Your task to perform on an android device: Set the phone to "Do not disturb". Image 0: 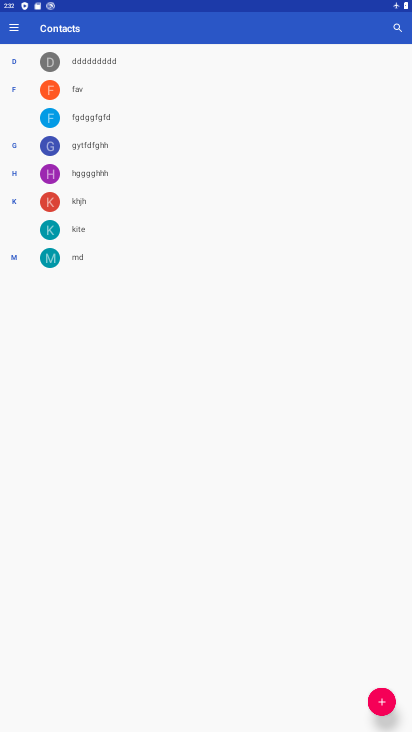
Step 0: press home button
Your task to perform on an android device: Set the phone to "Do not disturb". Image 1: 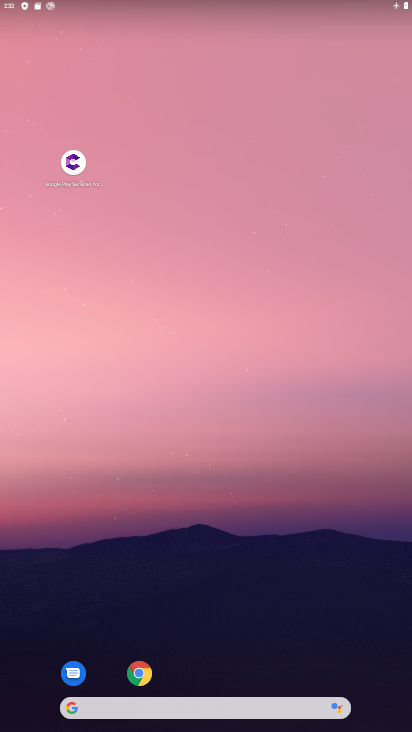
Step 1: drag from (238, 651) to (254, 399)
Your task to perform on an android device: Set the phone to "Do not disturb". Image 2: 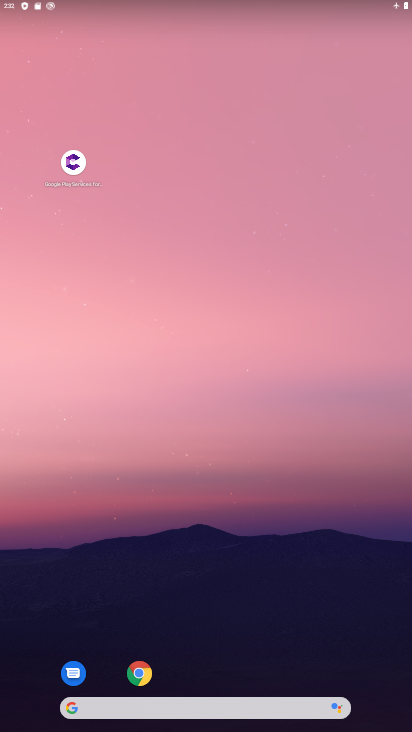
Step 2: drag from (237, 543) to (315, 191)
Your task to perform on an android device: Set the phone to "Do not disturb". Image 3: 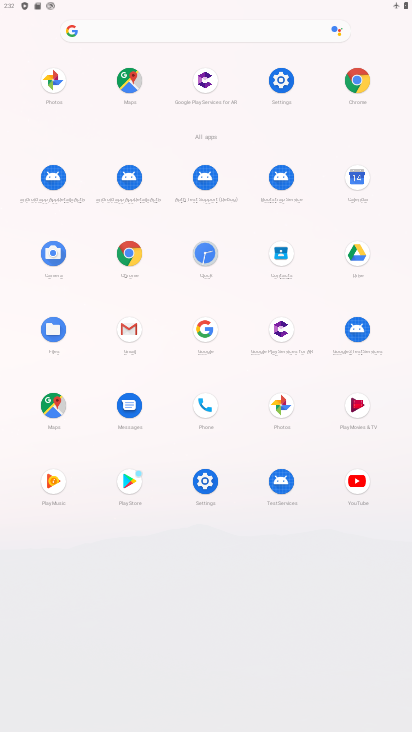
Step 3: click (206, 485)
Your task to perform on an android device: Set the phone to "Do not disturb". Image 4: 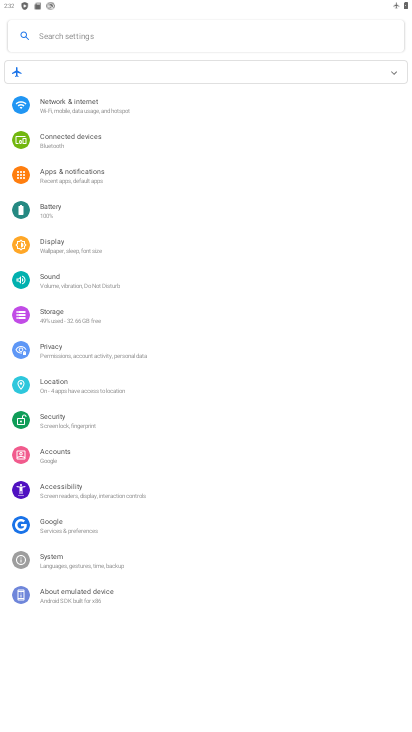
Step 4: click (117, 179)
Your task to perform on an android device: Set the phone to "Do not disturb". Image 5: 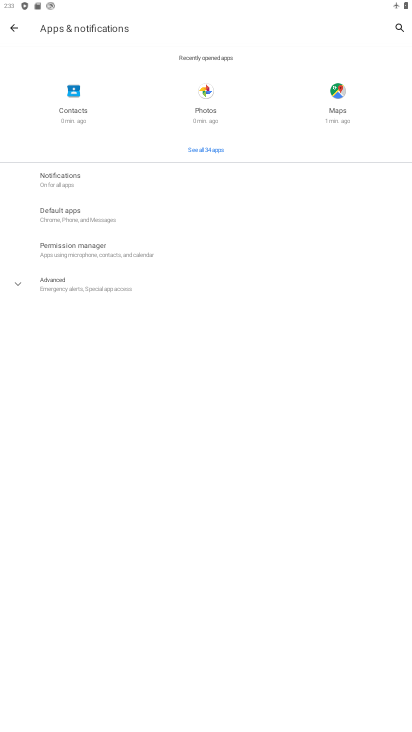
Step 5: click (101, 182)
Your task to perform on an android device: Set the phone to "Do not disturb". Image 6: 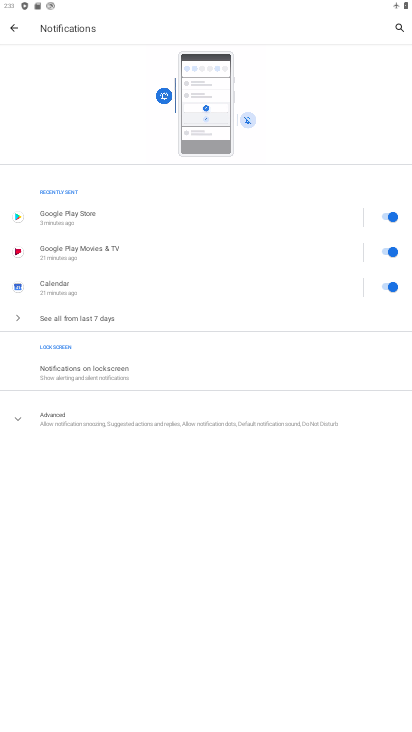
Step 6: click (118, 414)
Your task to perform on an android device: Set the phone to "Do not disturb". Image 7: 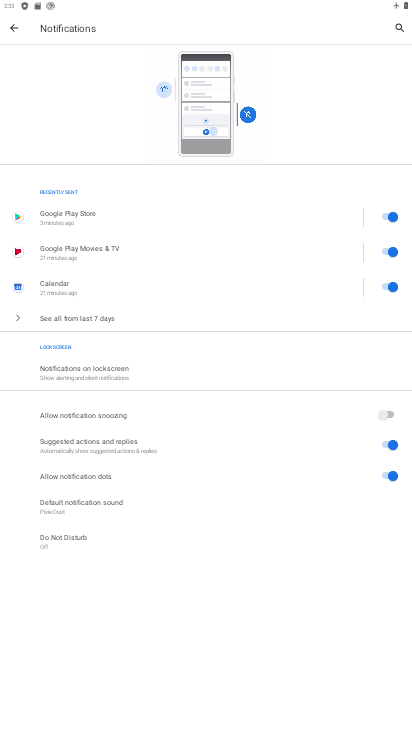
Step 7: click (104, 536)
Your task to perform on an android device: Set the phone to "Do not disturb". Image 8: 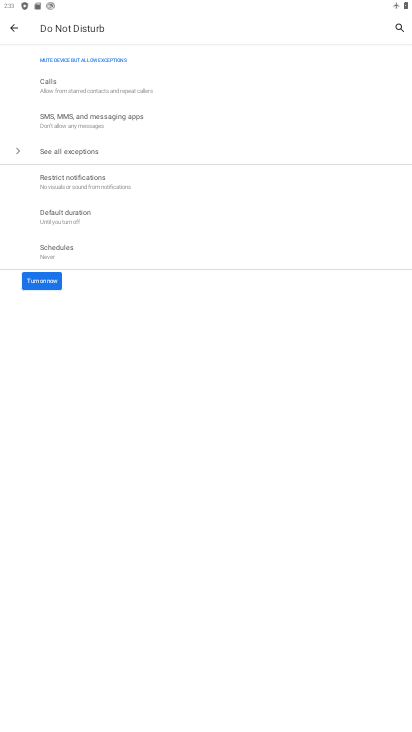
Step 8: click (52, 281)
Your task to perform on an android device: Set the phone to "Do not disturb". Image 9: 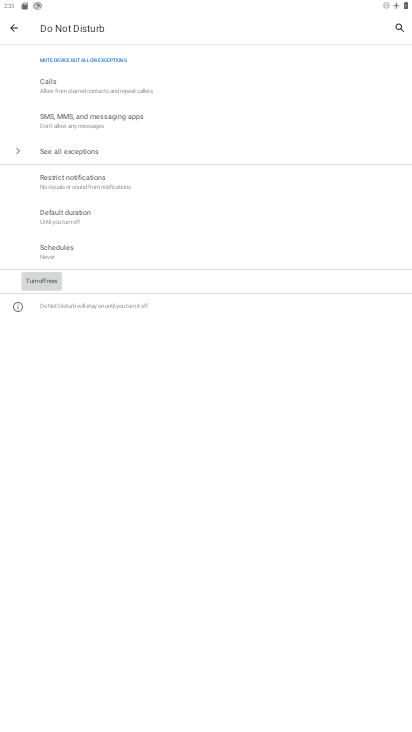
Step 9: task complete